Your task to perform on an android device: Find coffee shops on Maps Image 0: 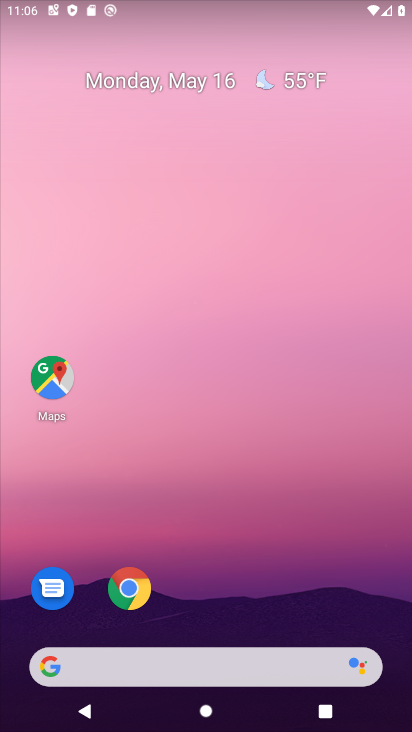
Step 0: drag from (310, 529) to (282, 149)
Your task to perform on an android device: Find coffee shops on Maps Image 1: 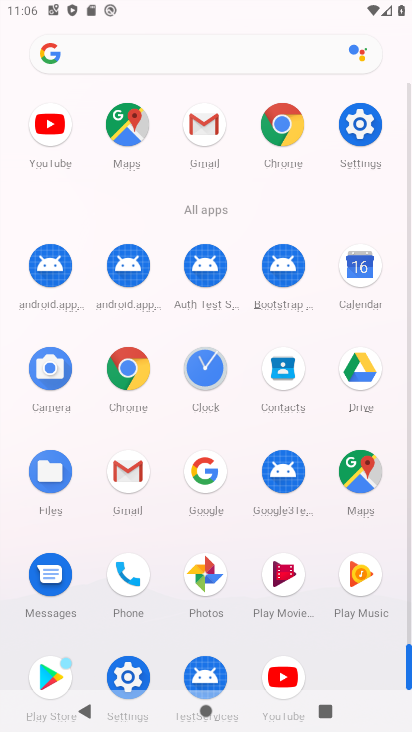
Step 1: click (367, 478)
Your task to perform on an android device: Find coffee shops on Maps Image 2: 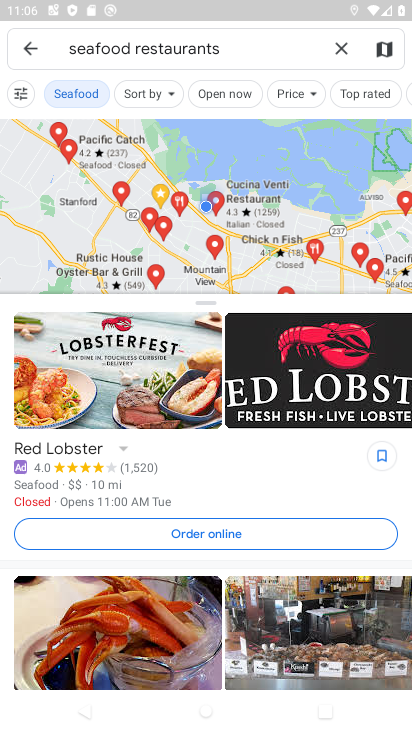
Step 2: click (337, 55)
Your task to perform on an android device: Find coffee shops on Maps Image 3: 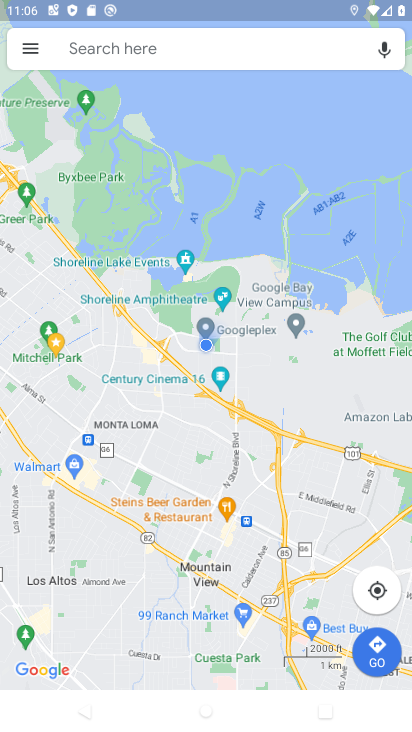
Step 3: click (251, 55)
Your task to perform on an android device: Find coffee shops on Maps Image 4: 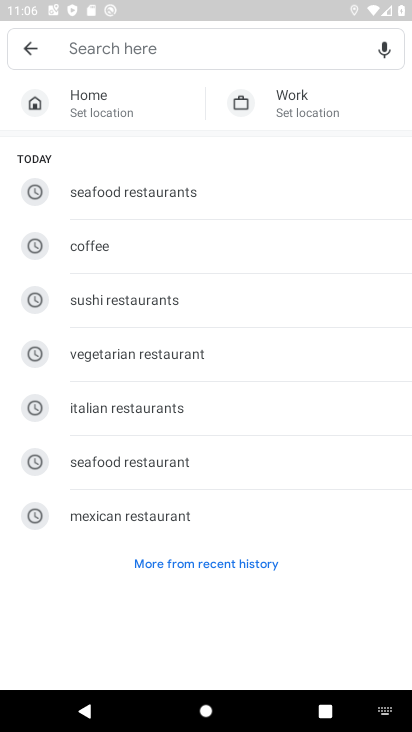
Step 4: type "coffee"
Your task to perform on an android device: Find coffee shops on Maps Image 5: 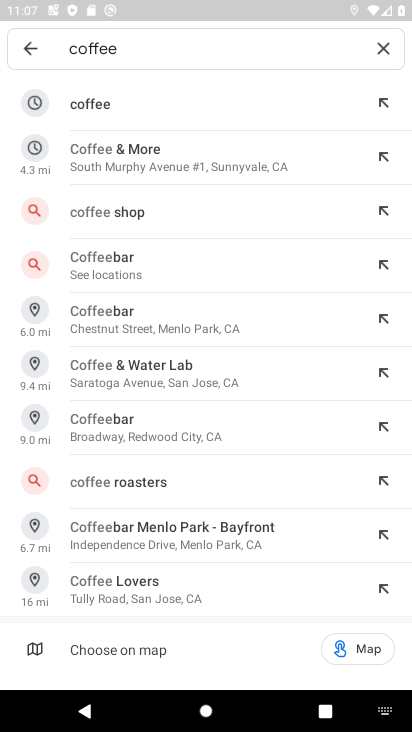
Step 5: click (120, 100)
Your task to perform on an android device: Find coffee shops on Maps Image 6: 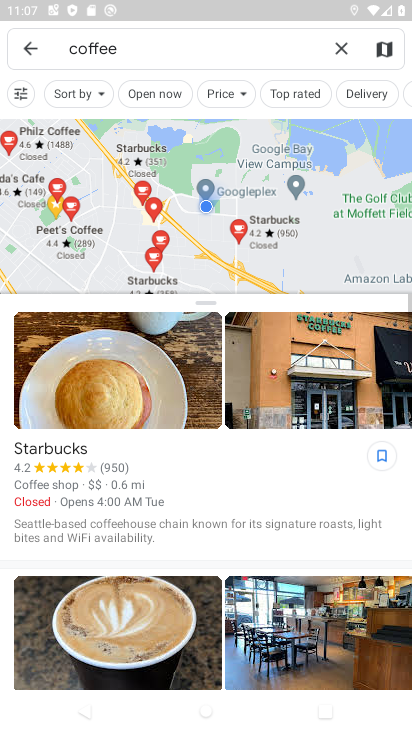
Step 6: task complete